Your task to perform on an android device: move an email to a new category in the gmail app Image 0: 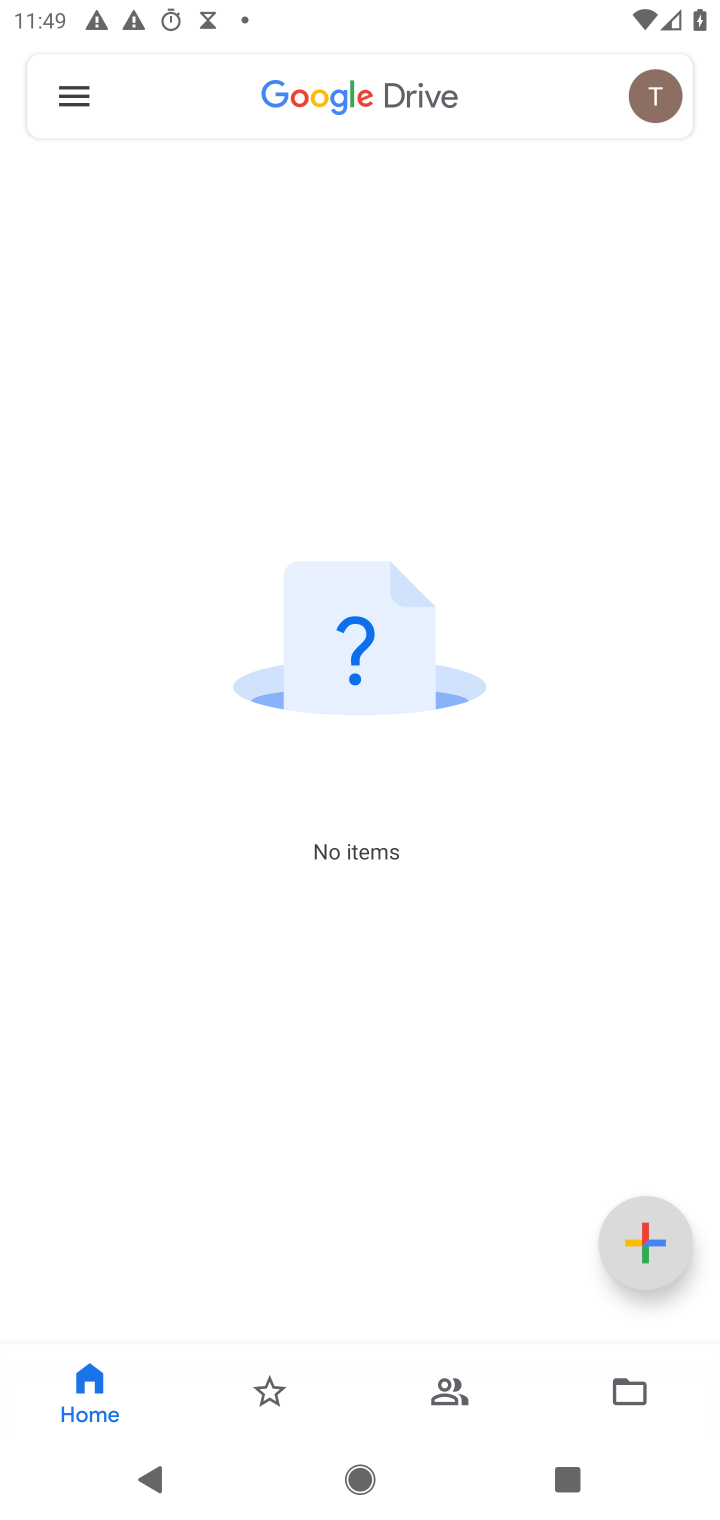
Step 0: press home button
Your task to perform on an android device: move an email to a new category in the gmail app Image 1: 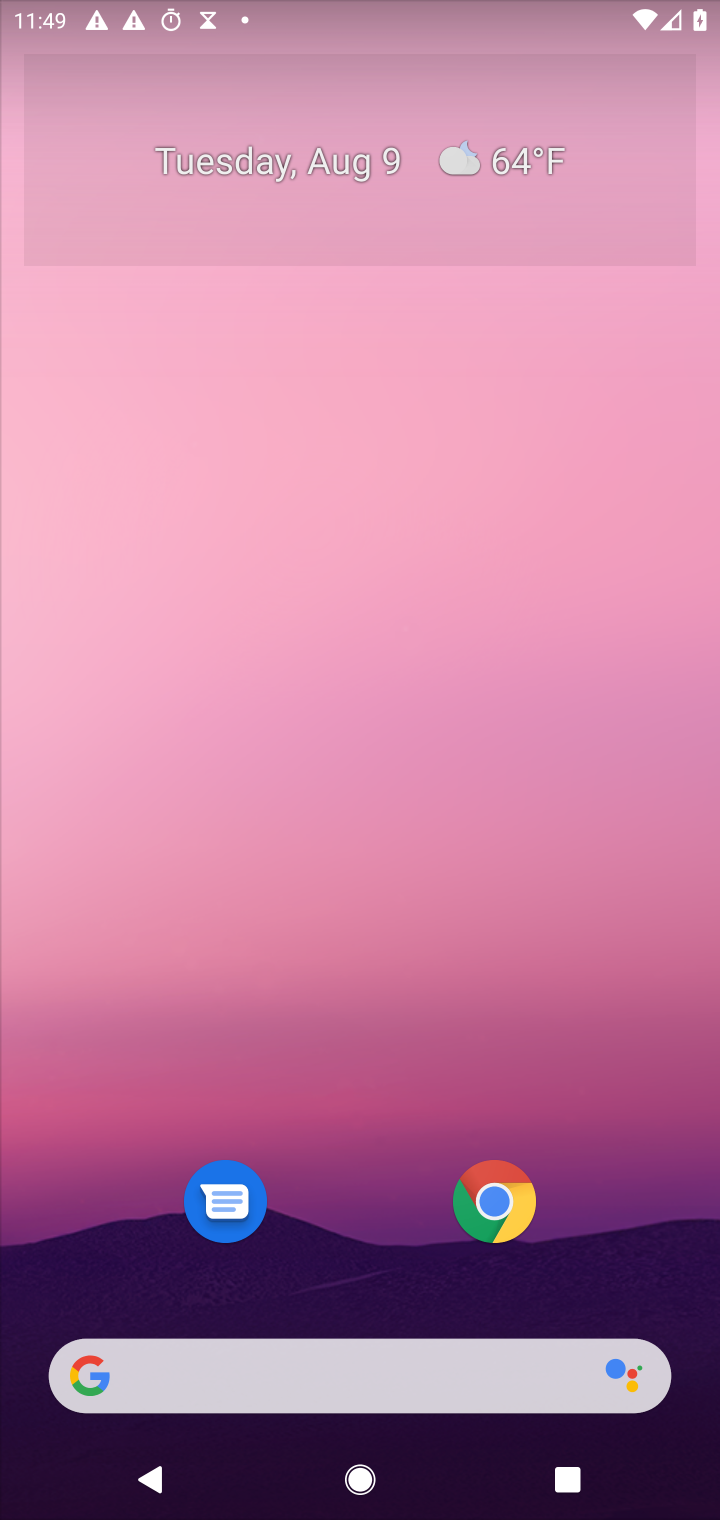
Step 1: drag from (387, 1198) to (410, 203)
Your task to perform on an android device: move an email to a new category in the gmail app Image 2: 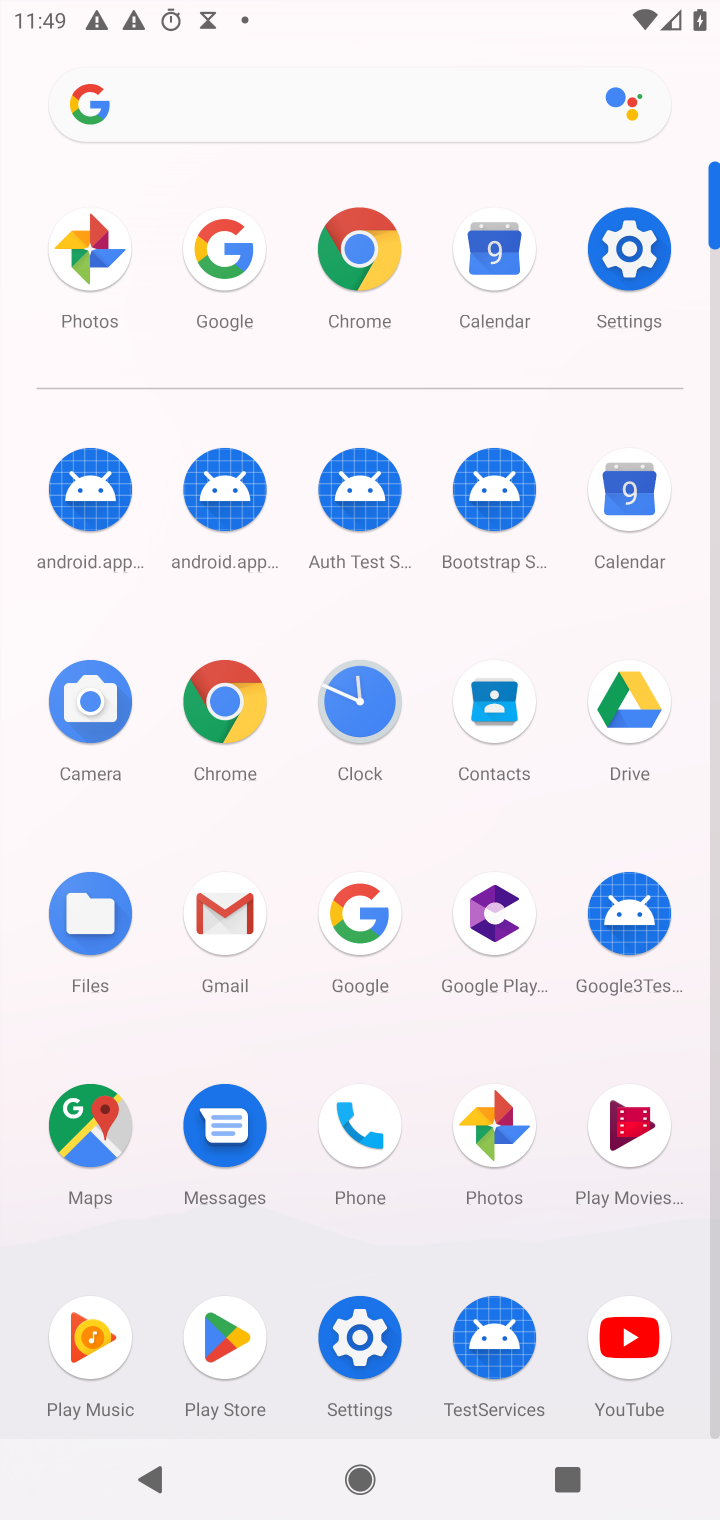
Step 2: click (212, 900)
Your task to perform on an android device: move an email to a new category in the gmail app Image 3: 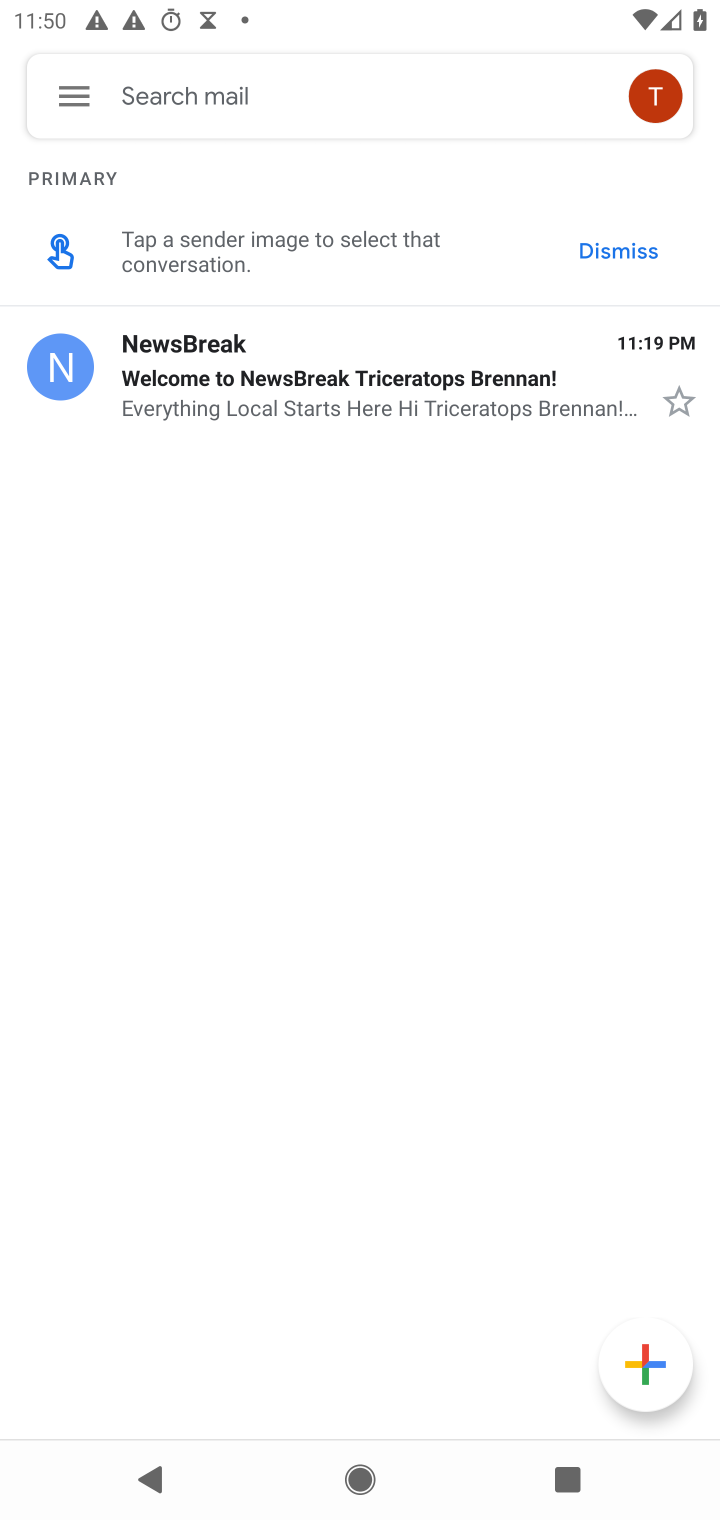
Step 3: click (312, 366)
Your task to perform on an android device: move an email to a new category in the gmail app Image 4: 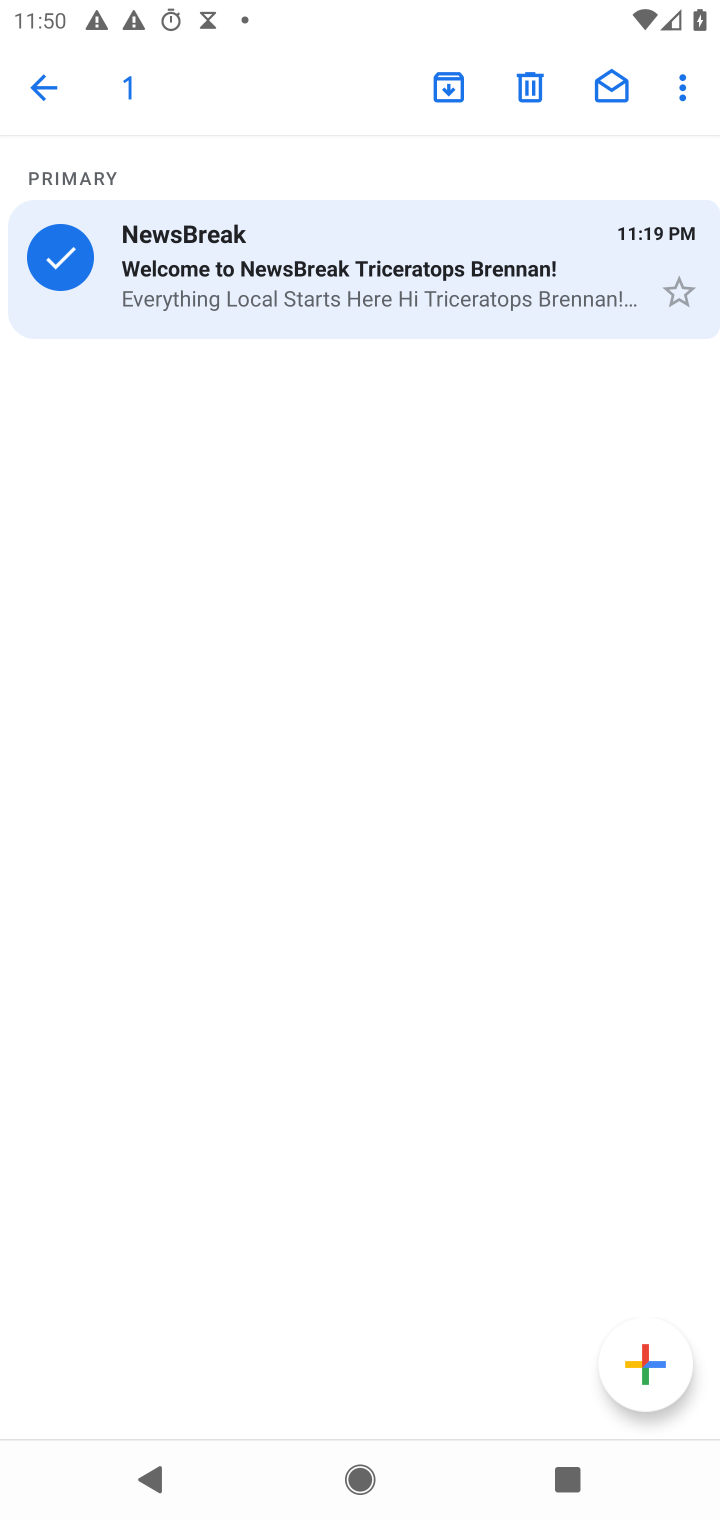
Step 4: click (678, 88)
Your task to perform on an android device: move an email to a new category in the gmail app Image 5: 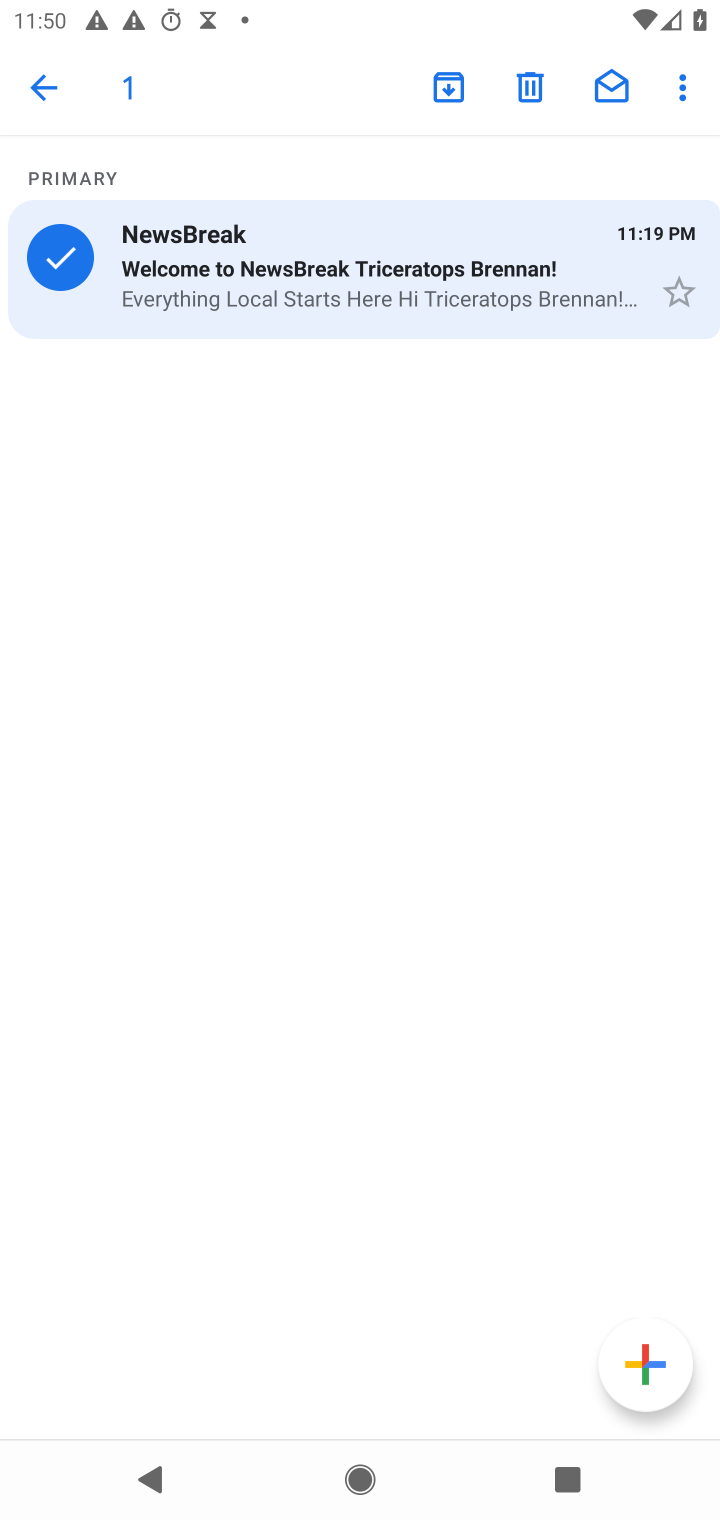
Step 5: click (672, 88)
Your task to perform on an android device: move an email to a new category in the gmail app Image 6: 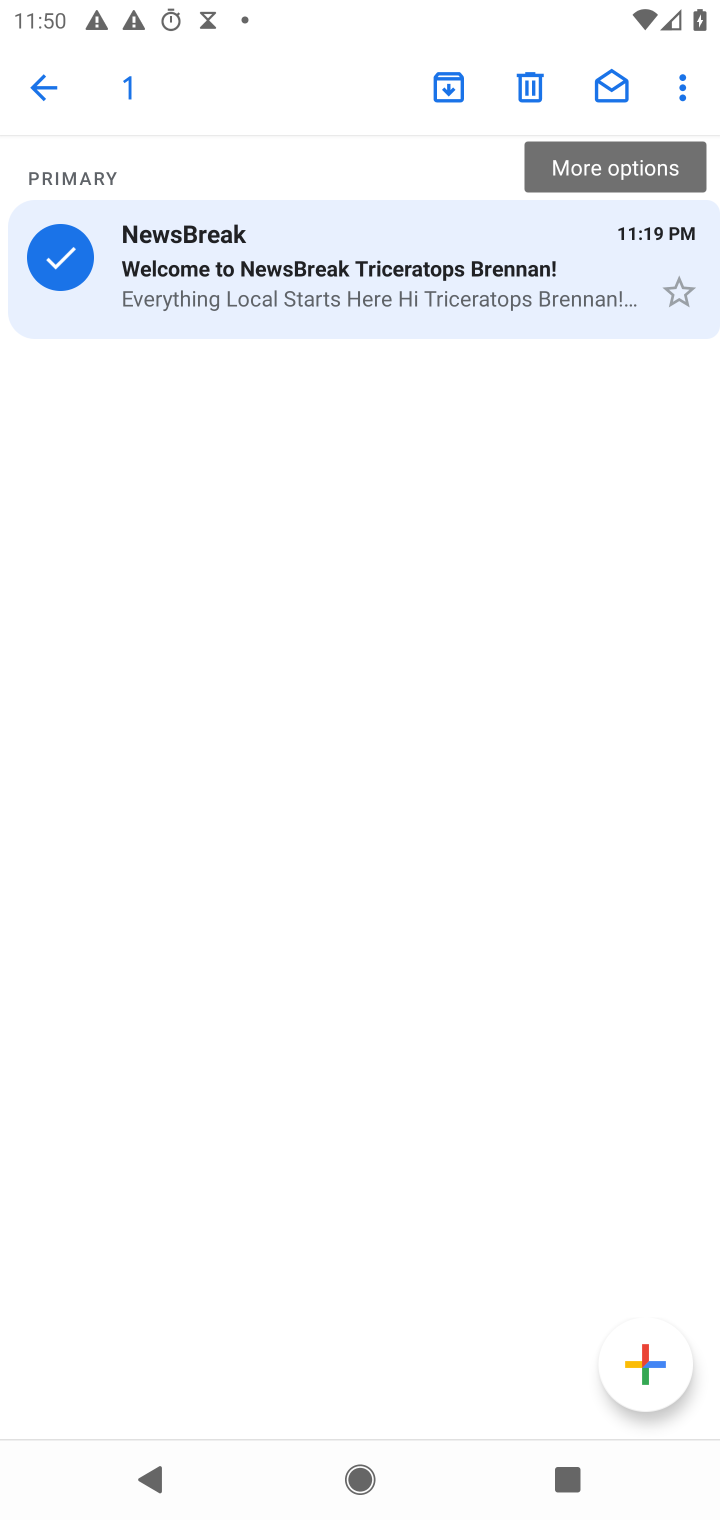
Step 6: click (687, 62)
Your task to perform on an android device: move an email to a new category in the gmail app Image 7: 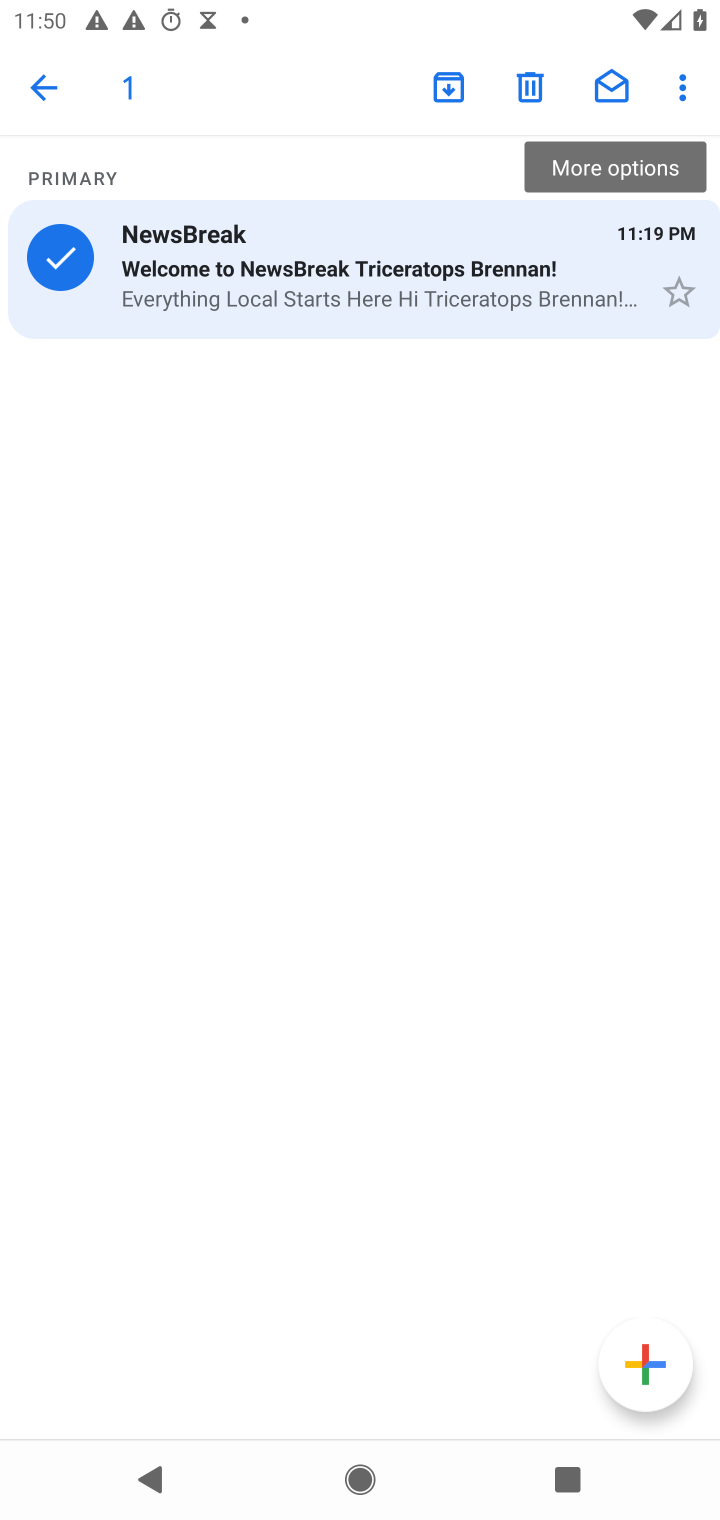
Step 7: click (681, 79)
Your task to perform on an android device: move an email to a new category in the gmail app Image 8: 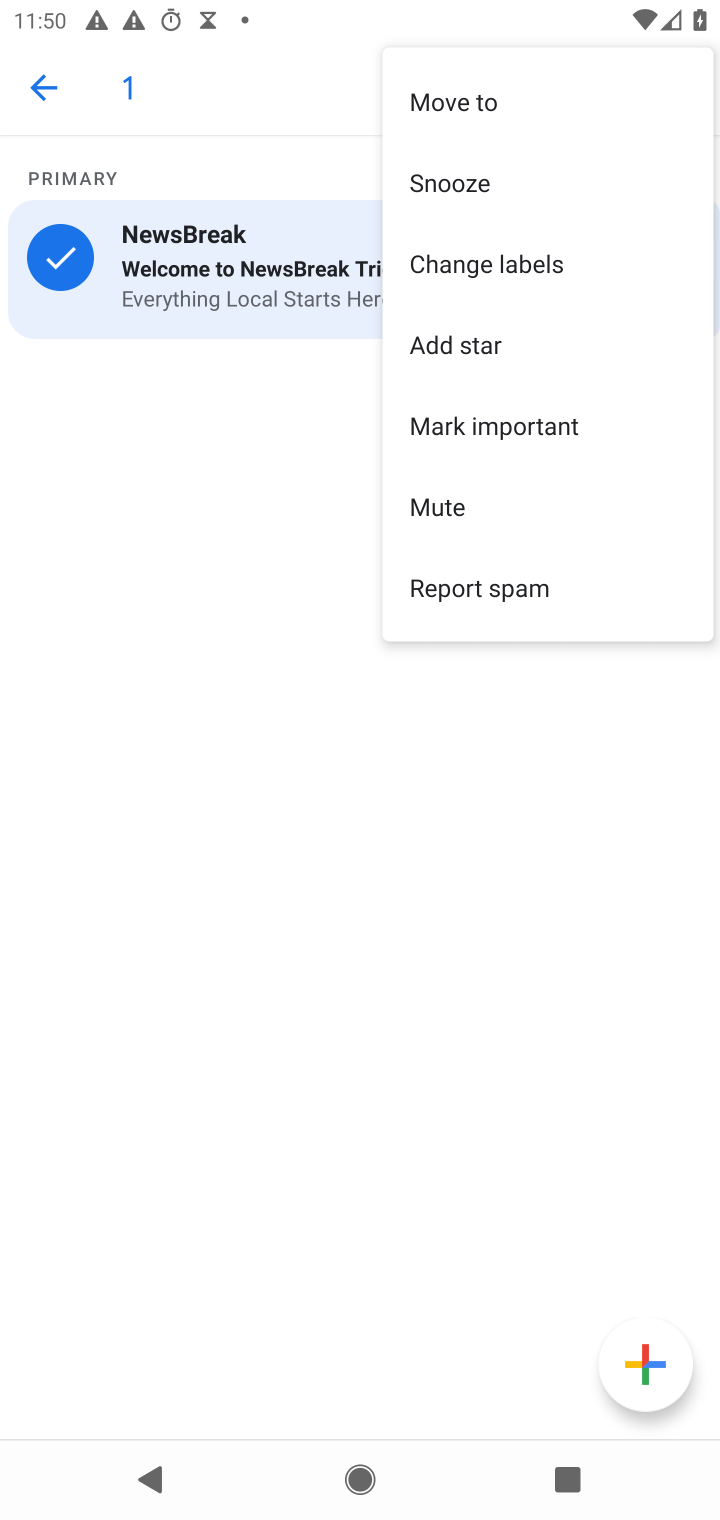
Step 8: click (468, 105)
Your task to perform on an android device: move an email to a new category in the gmail app Image 9: 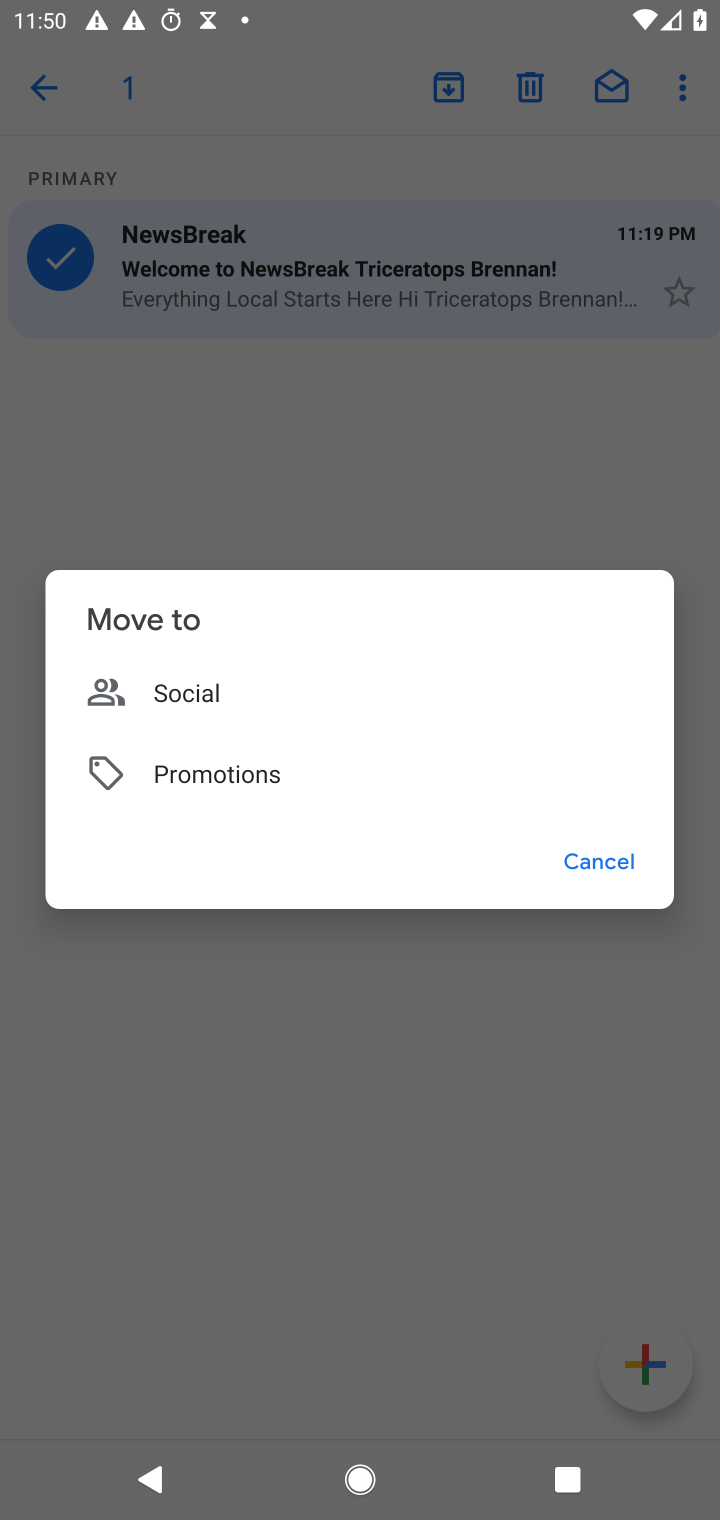
Step 9: click (195, 695)
Your task to perform on an android device: move an email to a new category in the gmail app Image 10: 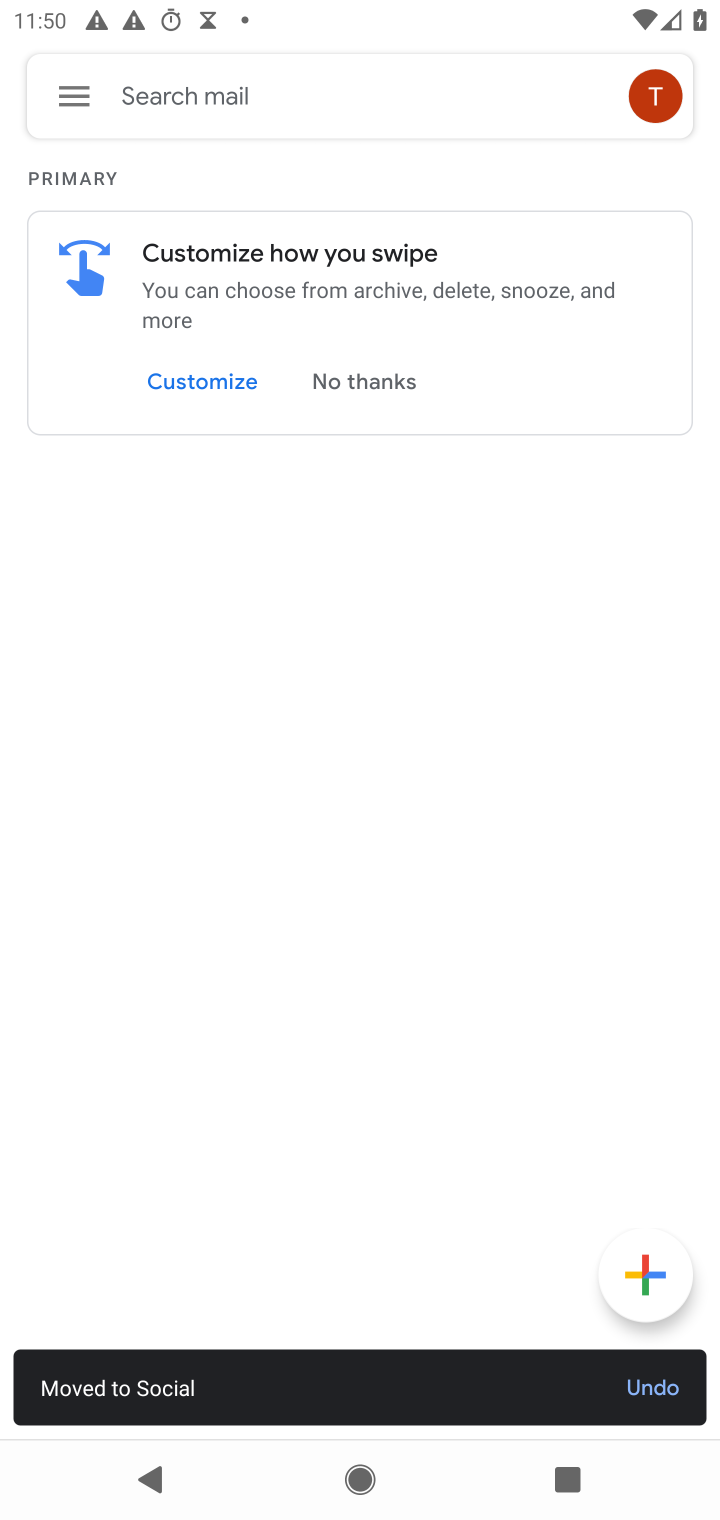
Step 10: task complete